Your task to perform on an android device: turn pop-ups on in chrome Image 0: 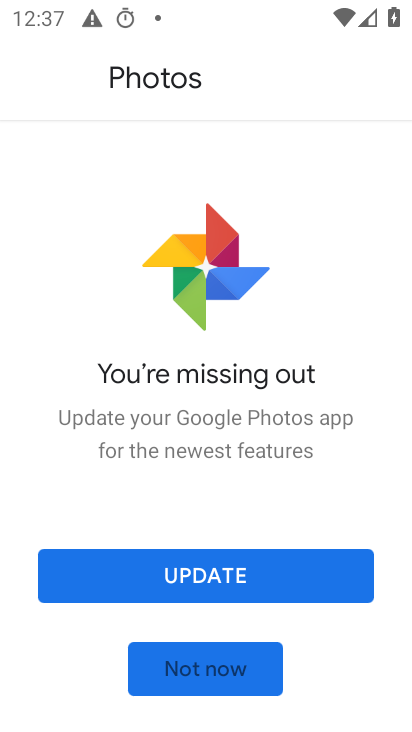
Step 0: click (179, 655)
Your task to perform on an android device: turn pop-ups on in chrome Image 1: 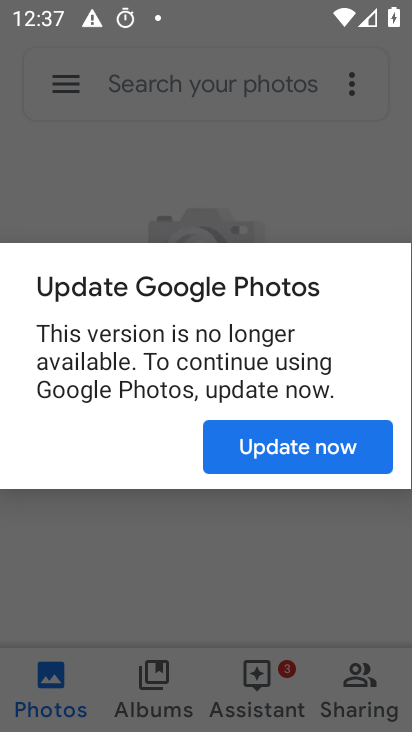
Step 1: press back button
Your task to perform on an android device: turn pop-ups on in chrome Image 2: 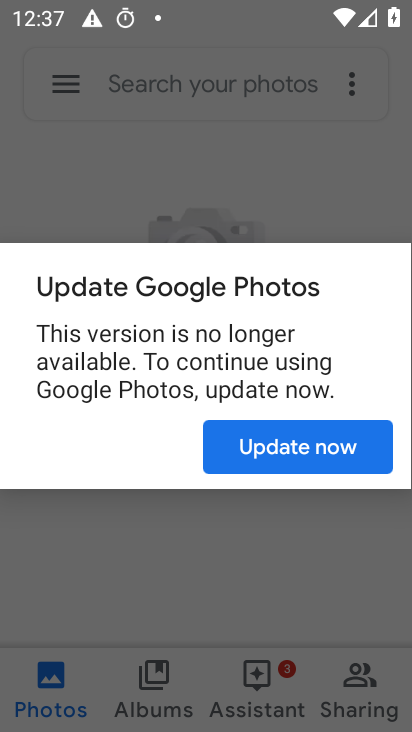
Step 2: press home button
Your task to perform on an android device: turn pop-ups on in chrome Image 3: 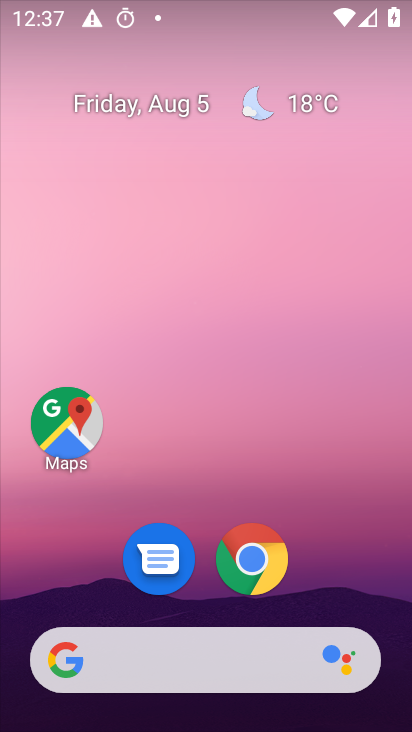
Step 3: click (272, 573)
Your task to perform on an android device: turn pop-ups on in chrome Image 4: 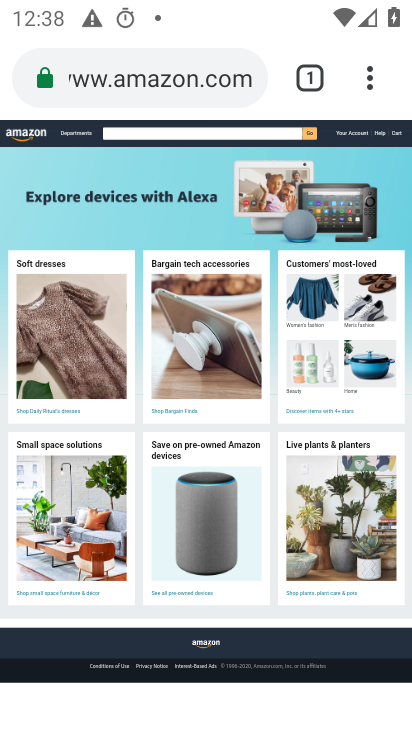
Step 4: click (376, 73)
Your task to perform on an android device: turn pop-ups on in chrome Image 5: 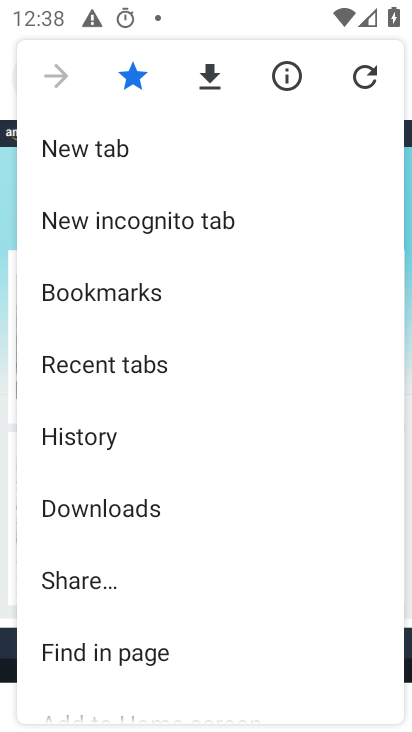
Step 5: drag from (287, 535) to (242, 243)
Your task to perform on an android device: turn pop-ups on in chrome Image 6: 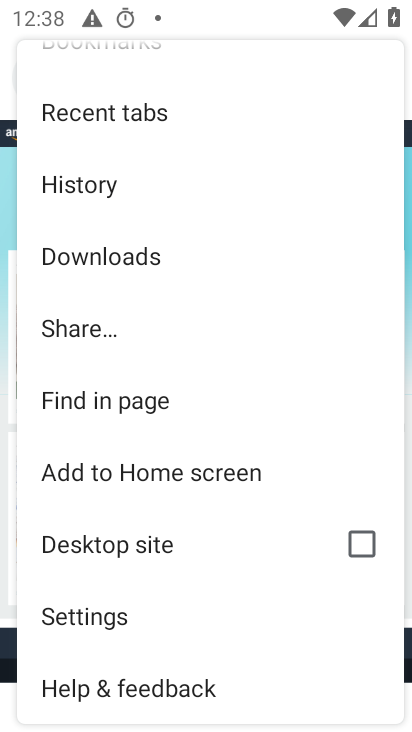
Step 6: click (87, 609)
Your task to perform on an android device: turn pop-ups on in chrome Image 7: 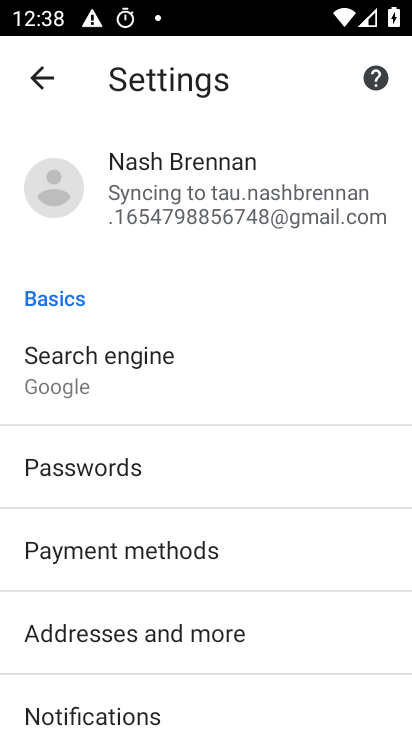
Step 7: drag from (337, 638) to (309, 427)
Your task to perform on an android device: turn pop-ups on in chrome Image 8: 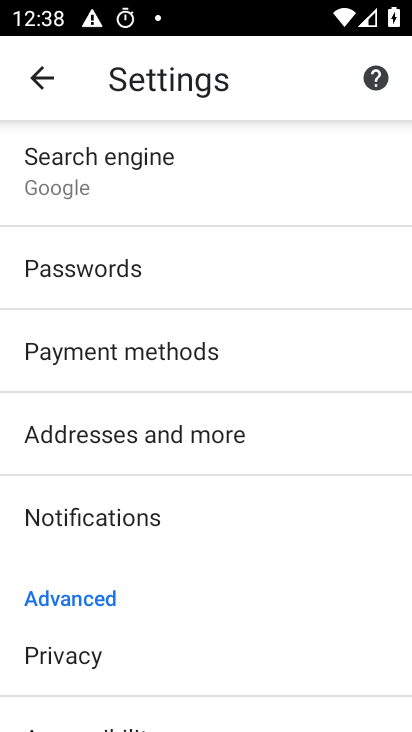
Step 8: drag from (337, 663) to (326, 437)
Your task to perform on an android device: turn pop-ups on in chrome Image 9: 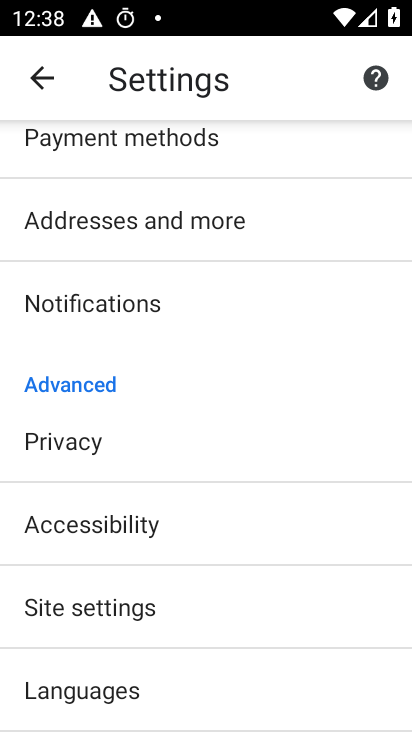
Step 9: click (89, 601)
Your task to perform on an android device: turn pop-ups on in chrome Image 10: 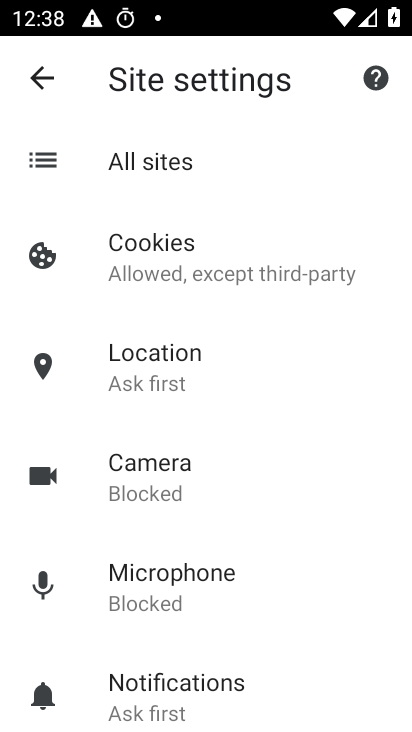
Step 10: drag from (334, 682) to (336, 431)
Your task to perform on an android device: turn pop-ups on in chrome Image 11: 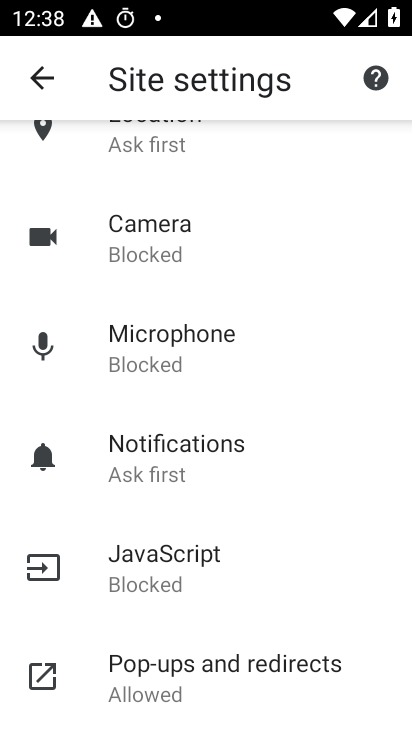
Step 11: click (185, 673)
Your task to perform on an android device: turn pop-ups on in chrome Image 12: 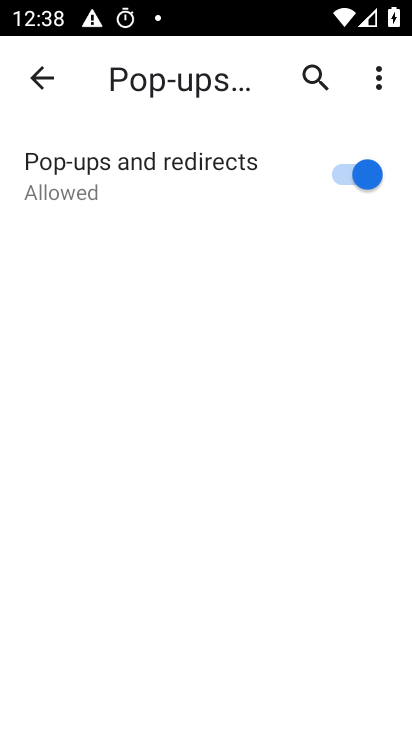
Step 12: task complete